Your task to perform on an android device: Open Google Maps and go to "Timeline" Image 0: 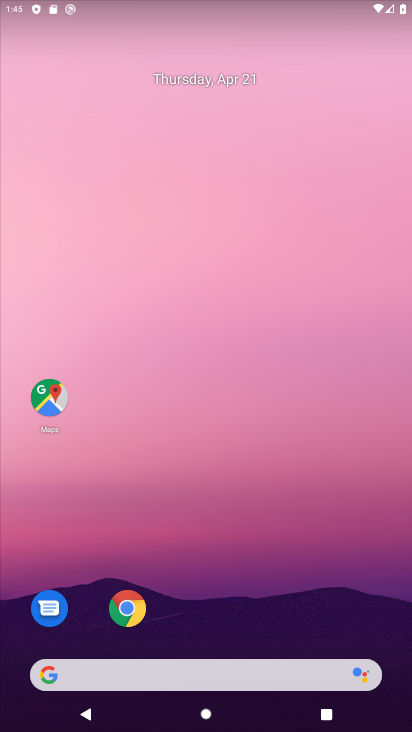
Step 0: click (51, 383)
Your task to perform on an android device: Open Google Maps and go to "Timeline" Image 1: 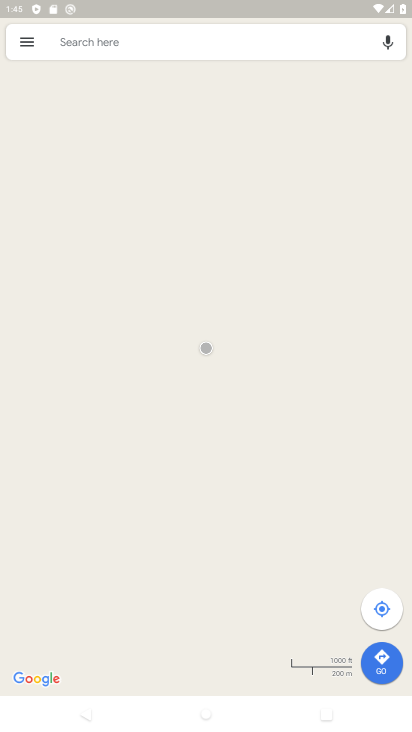
Step 1: click (26, 43)
Your task to perform on an android device: Open Google Maps and go to "Timeline" Image 2: 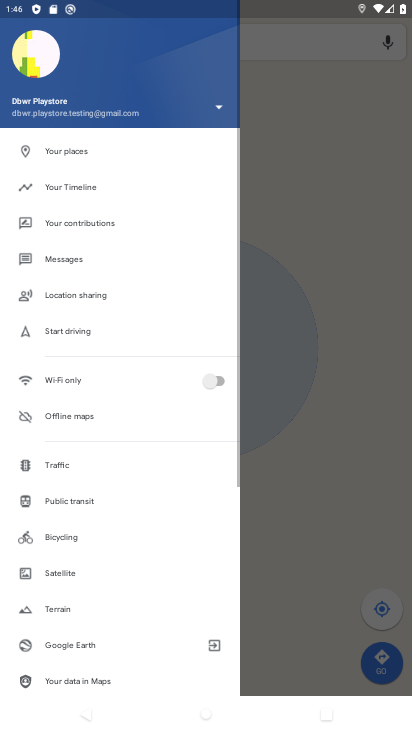
Step 2: click (87, 184)
Your task to perform on an android device: Open Google Maps and go to "Timeline" Image 3: 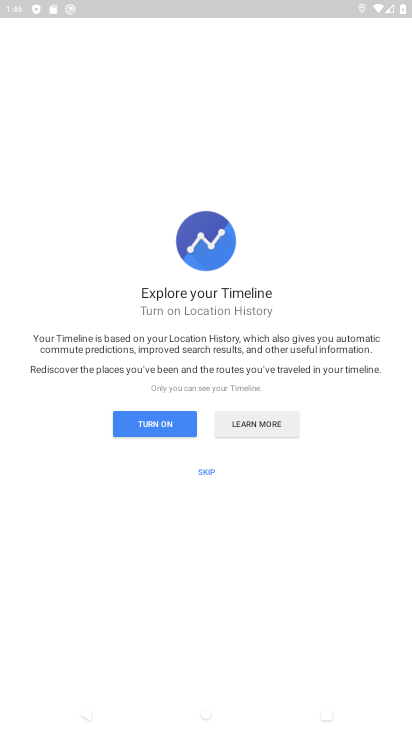
Step 3: click (166, 416)
Your task to perform on an android device: Open Google Maps and go to "Timeline" Image 4: 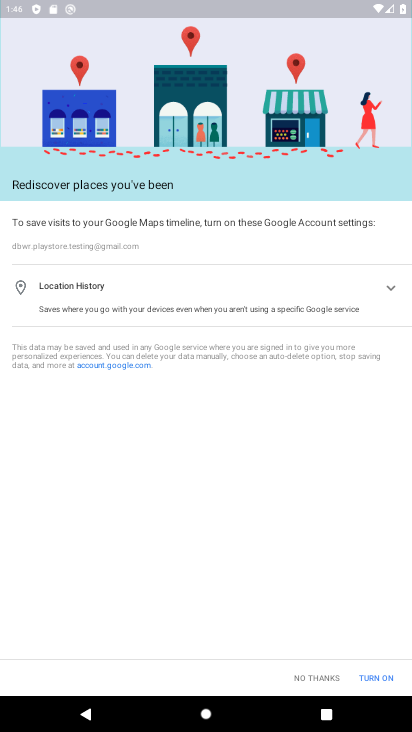
Step 4: task complete